Your task to perform on an android device: Show me popular games on the Play Store Image 0: 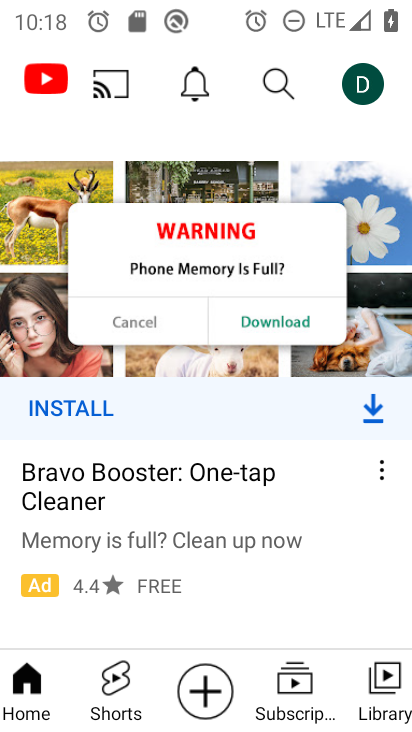
Step 0: press back button
Your task to perform on an android device: Show me popular games on the Play Store Image 1: 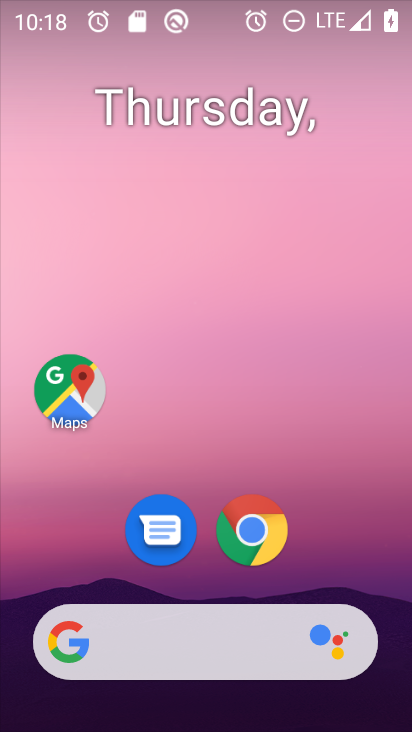
Step 1: drag from (365, 574) to (253, 57)
Your task to perform on an android device: Show me popular games on the Play Store Image 2: 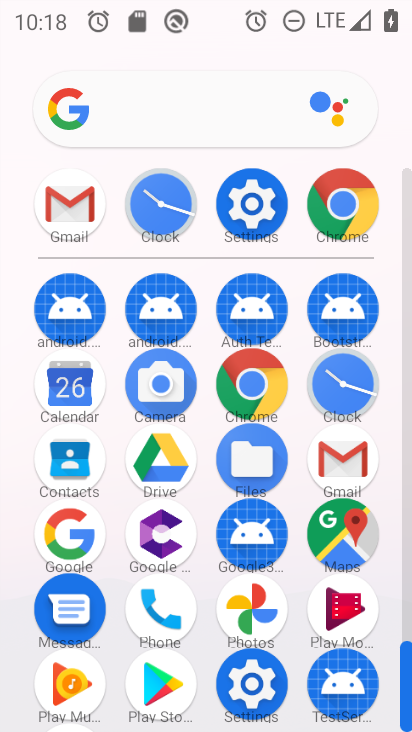
Step 2: click (163, 674)
Your task to perform on an android device: Show me popular games on the Play Store Image 3: 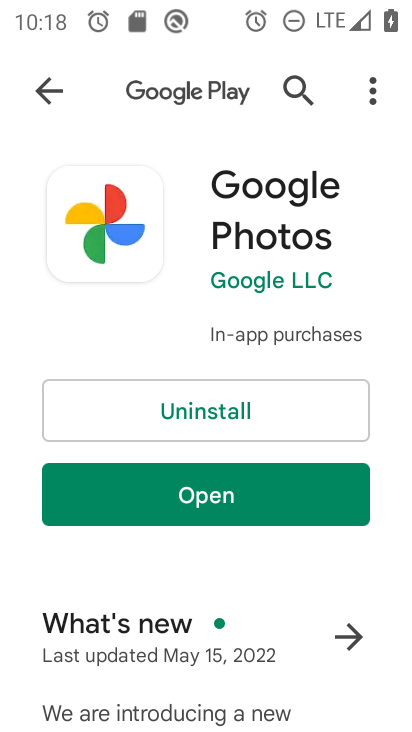
Step 3: press back button
Your task to perform on an android device: Show me popular games on the Play Store Image 4: 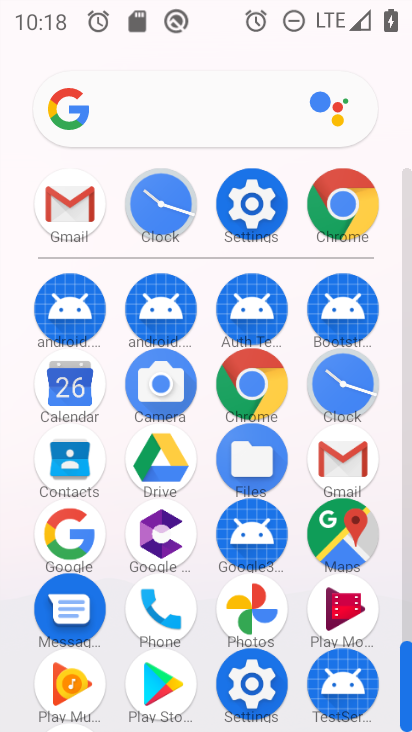
Step 4: click (163, 679)
Your task to perform on an android device: Show me popular games on the Play Store Image 5: 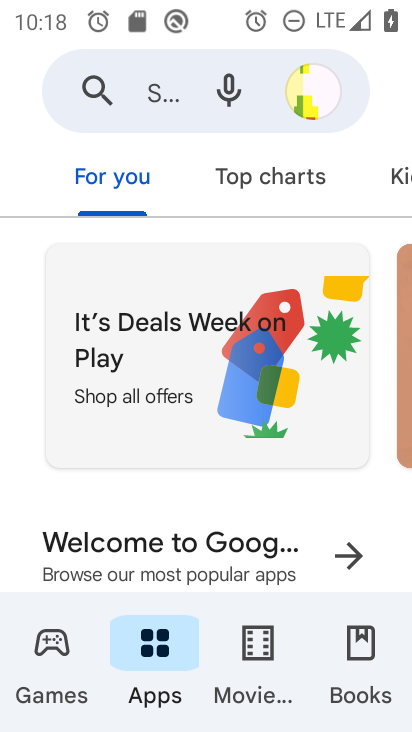
Step 5: drag from (333, 154) to (73, 164)
Your task to perform on an android device: Show me popular games on the Play Store Image 6: 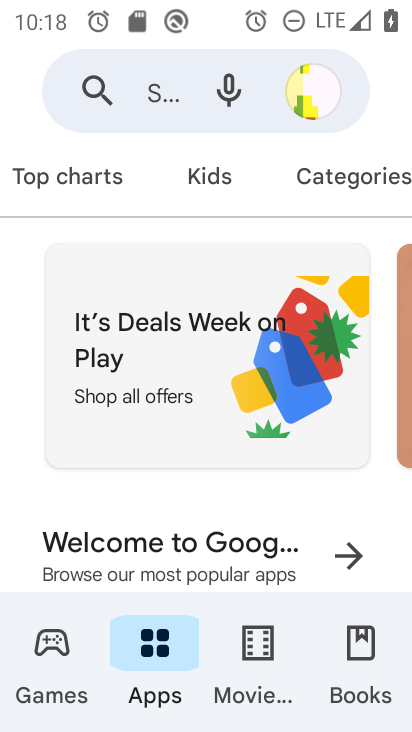
Step 6: click (373, 184)
Your task to perform on an android device: Show me popular games on the Play Store Image 7: 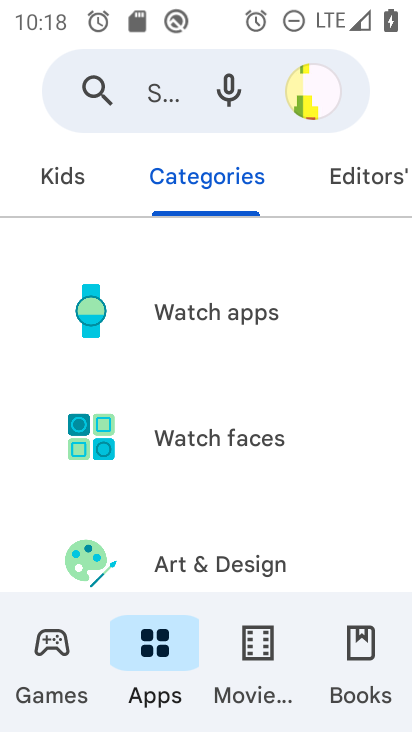
Step 7: drag from (338, 519) to (322, 206)
Your task to perform on an android device: Show me popular games on the Play Store Image 8: 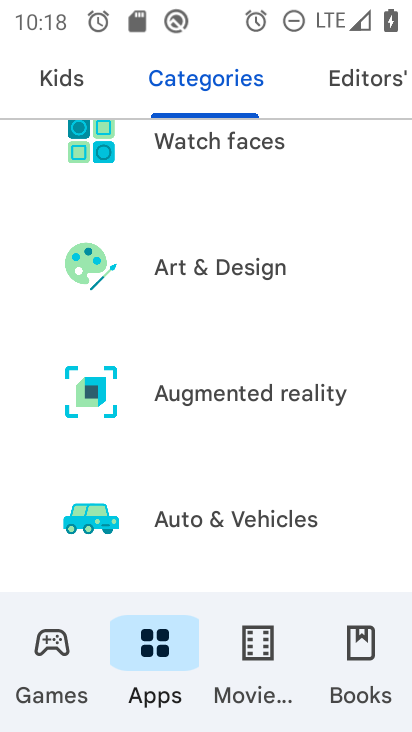
Step 8: drag from (321, 544) to (318, 202)
Your task to perform on an android device: Show me popular games on the Play Store Image 9: 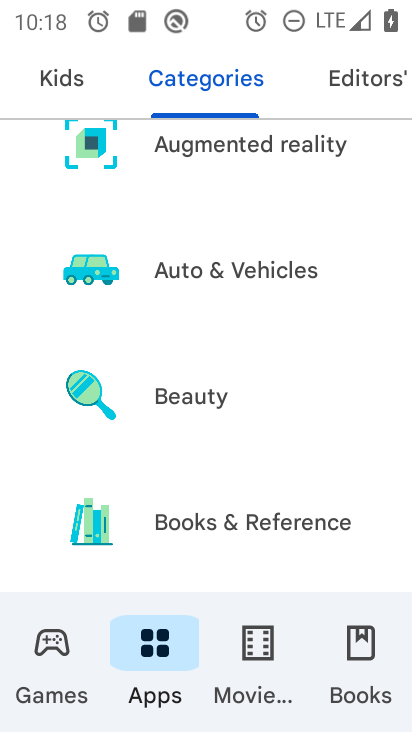
Step 9: drag from (318, 513) to (320, 209)
Your task to perform on an android device: Show me popular games on the Play Store Image 10: 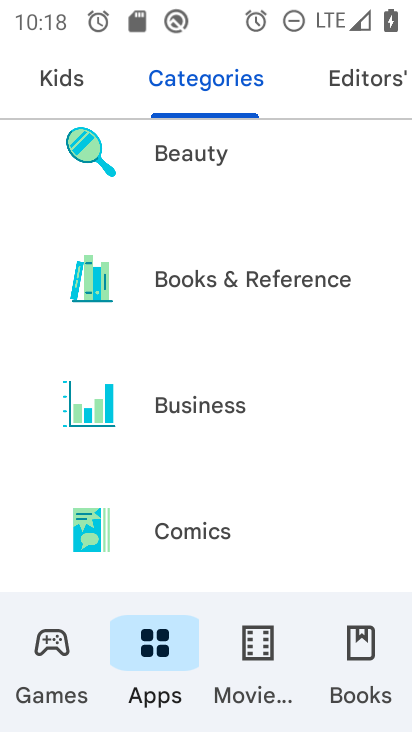
Step 10: drag from (325, 459) to (310, 184)
Your task to perform on an android device: Show me popular games on the Play Store Image 11: 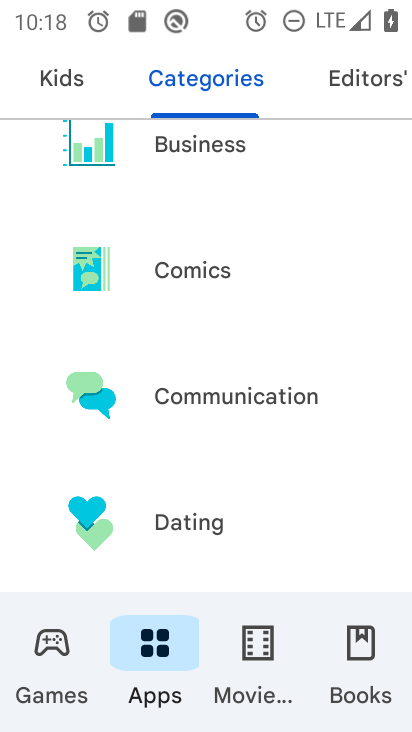
Step 11: drag from (318, 499) to (318, 188)
Your task to perform on an android device: Show me popular games on the Play Store Image 12: 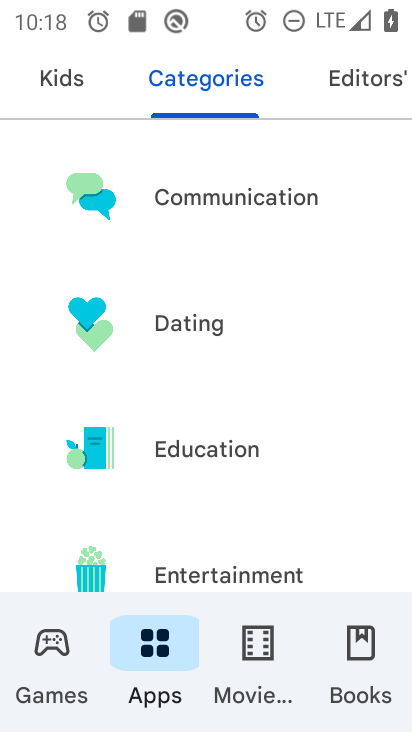
Step 12: drag from (318, 549) to (316, 190)
Your task to perform on an android device: Show me popular games on the Play Store Image 13: 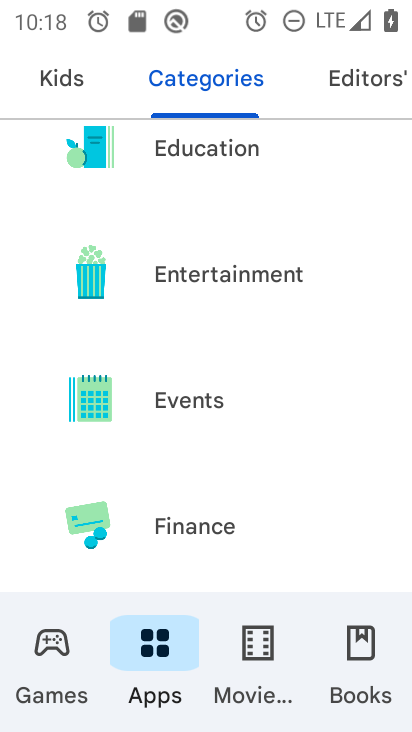
Step 13: drag from (319, 496) to (327, 165)
Your task to perform on an android device: Show me popular games on the Play Store Image 14: 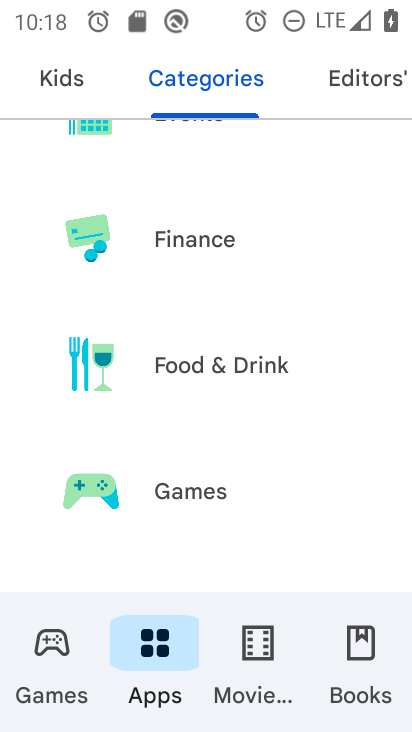
Step 14: drag from (316, 479) to (316, 164)
Your task to perform on an android device: Show me popular games on the Play Store Image 15: 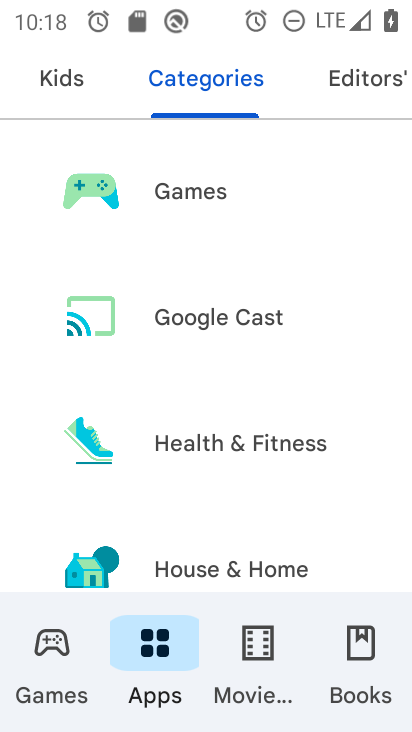
Step 15: drag from (318, 502) to (318, 172)
Your task to perform on an android device: Show me popular games on the Play Store Image 16: 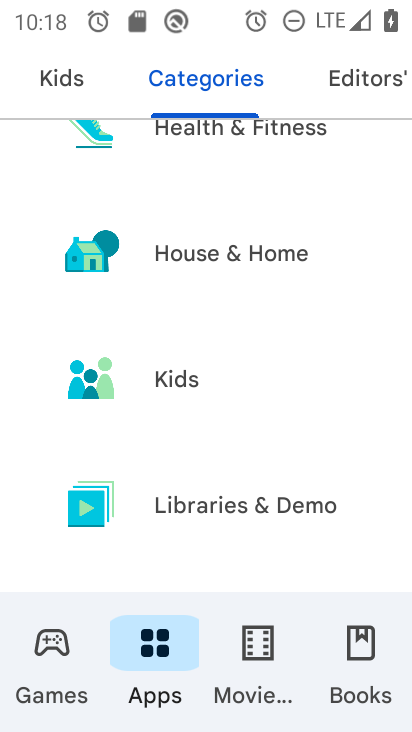
Step 16: drag from (315, 499) to (311, 156)
Your task to perform on an android device: Show me popular games on the Play Store Image 17: 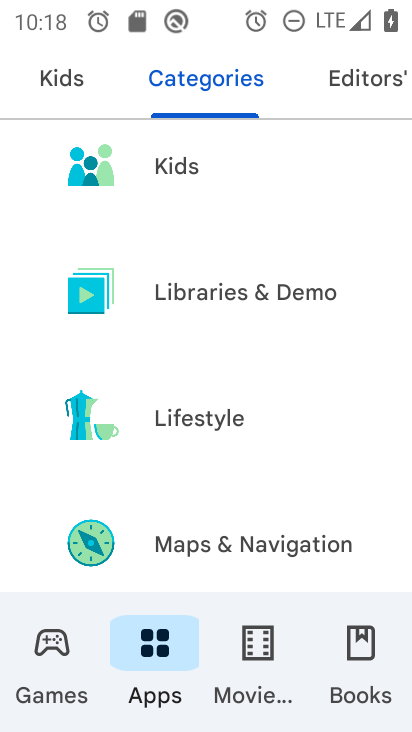
Step 17: drag from (310, 510) to (305, 174)
Your task to perform on an android device: Show me popular games on the Play Store Image 18: 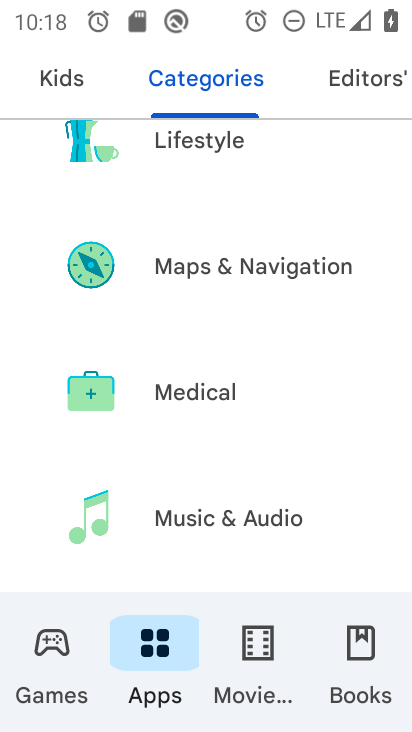
Step 18: drag from (288, 502) to (285, 199)
Your task to perform on an android device: Show me popular games on the Play Store Image 19: 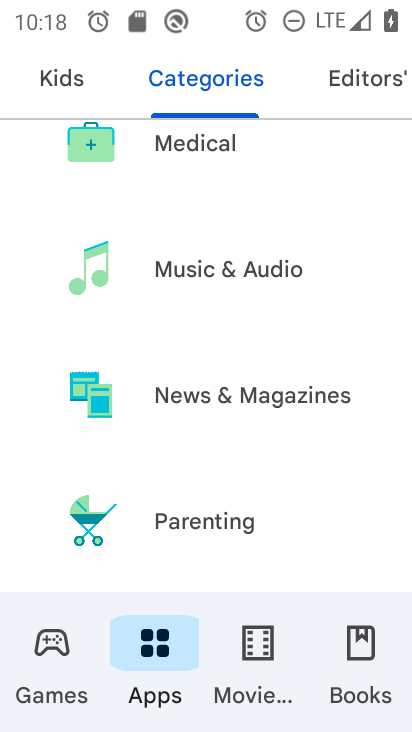
Step 19: drag from (308, 541) to (302, 183)
Your task to perform on an android device: Show me popular games on the Play Store Image 20: 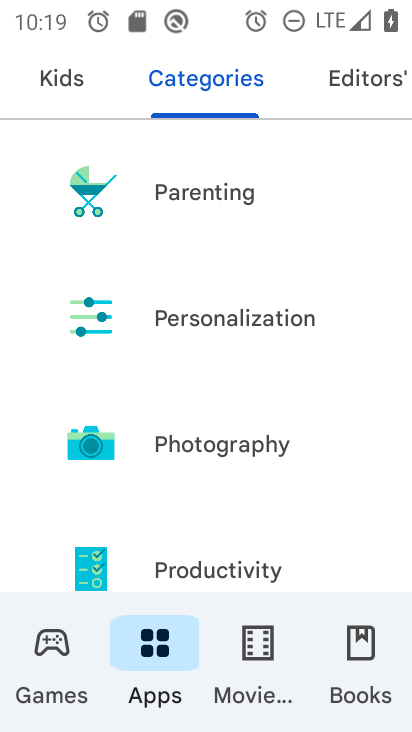
Step 20: drag from (292, 476) to (302, 273)
Your task to perform on an android device: Show me popular games on the Play Store Image 21: 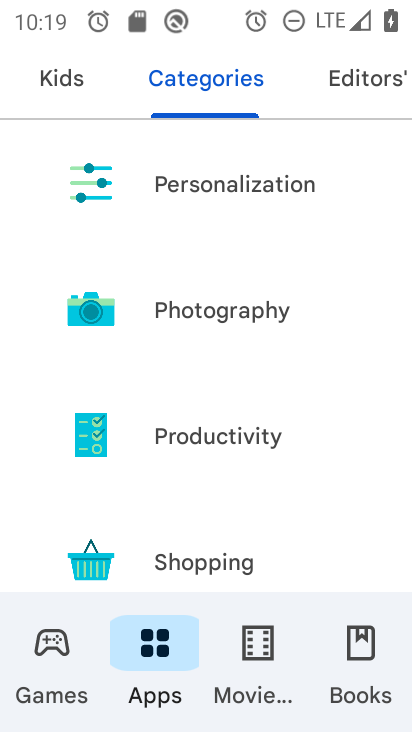
Step 21: click (51, 667)
Your task to perform on an android device: Show me popular games on the Play Store Image 22: 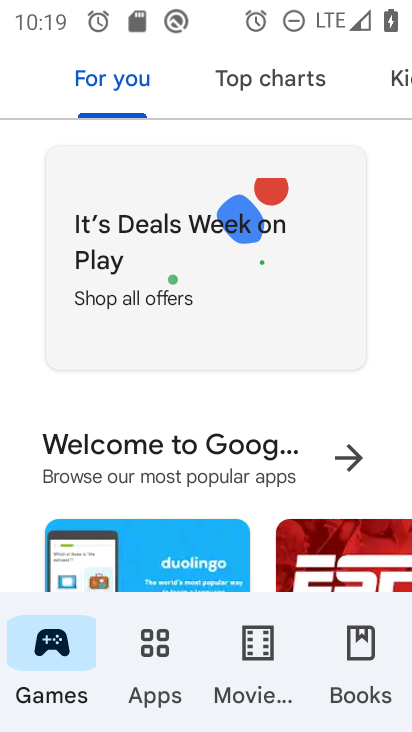
Step 22: task complete